Your task to perform on an android device: Go to Yahoo.com Image 0: 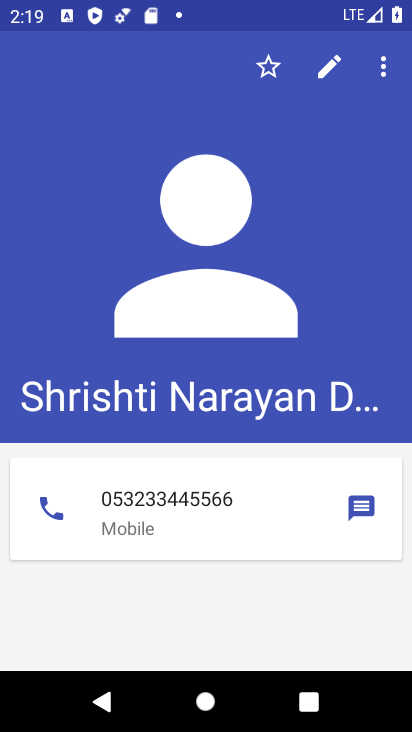
Step 0: press home button
Your task to perform on an android device: Go to Yahoo.com Image 1: 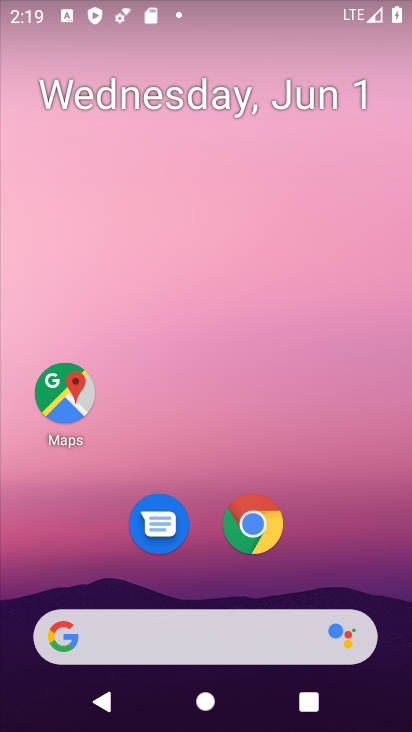
Step 1: click (259, 632)
Your task to perform on an android device: Go to Yahoo.com Image 2: 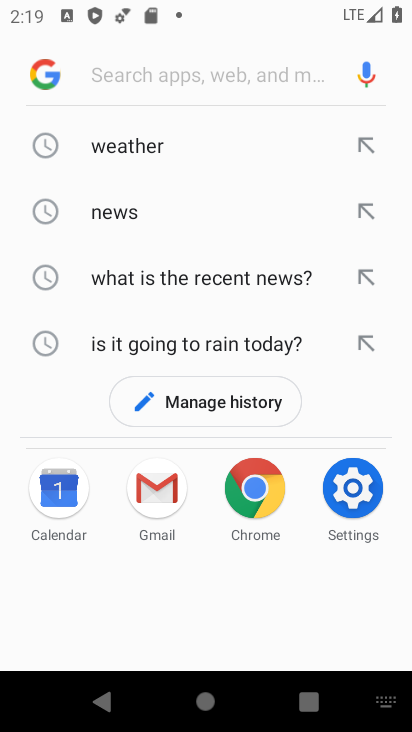
Step 2: type "yahoo.com"
Your task to perform on an android device: Go to Yahoo.com Image 3: 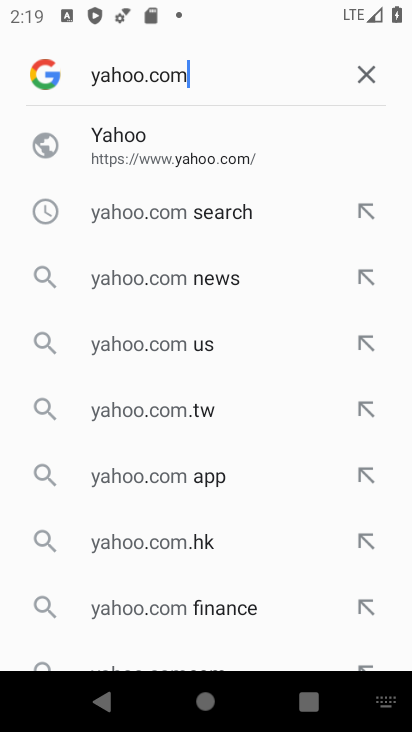
Step 3: click (124, 136)
Your task to perform on an android device: Go to Yahoo.com Image 4: 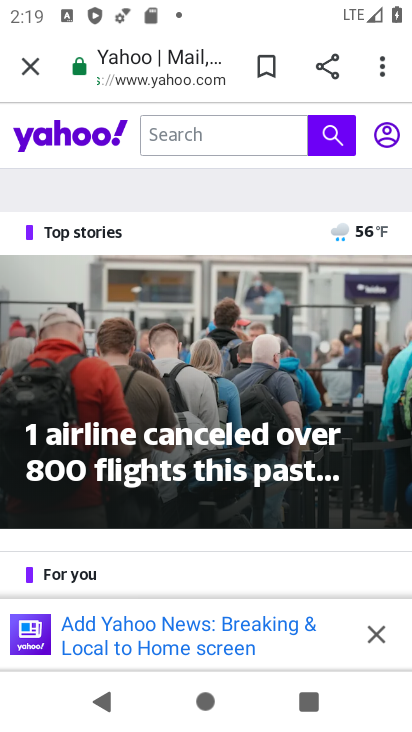
Step 4: task complete